Your task to perform on an android device: turn on wifi Image 0: 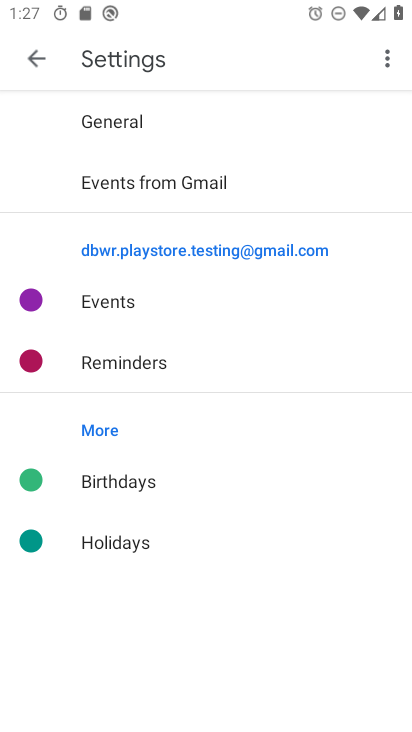
Step 0: press home button
Your task to perform on an android device: turn on wifi Image 1: 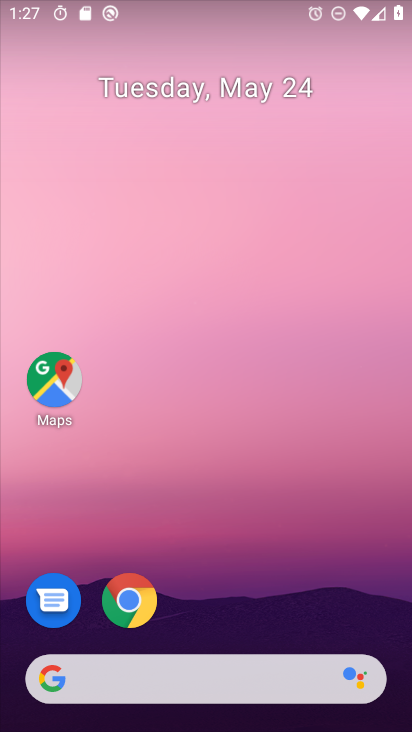
Step 1: drag from (261, 596) to (245, 182)
Your task to perform on an android device: turn on wifi Image 2: 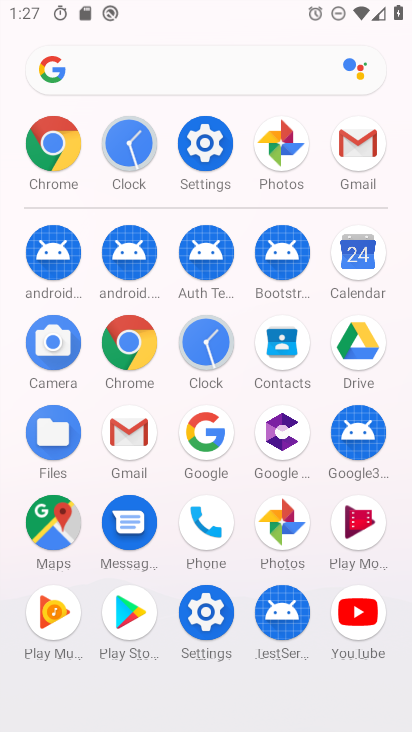
Step 2: click (216, 140)
Your task to perform on an android device: turn on wifi Image 3: 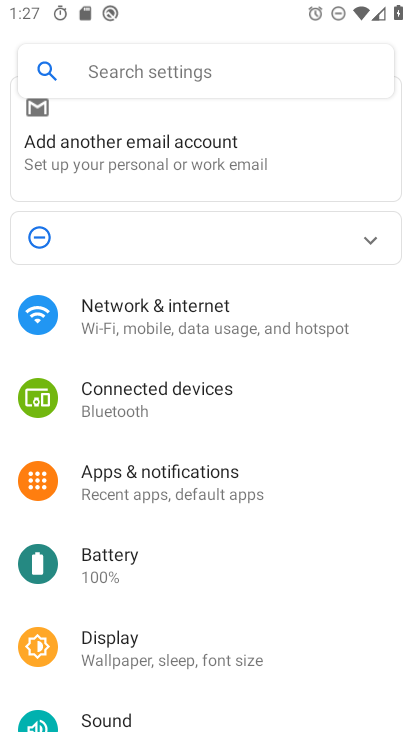
Step 3: click (175, 311)
Your task to perform on an android device: turn on wifi Image 4: 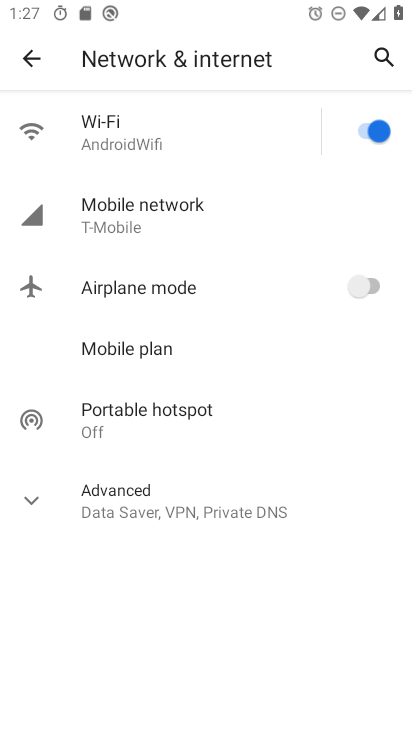
Step 4: click (238, 116)
Your task to perform on an android device: turn on wifi Image 5: 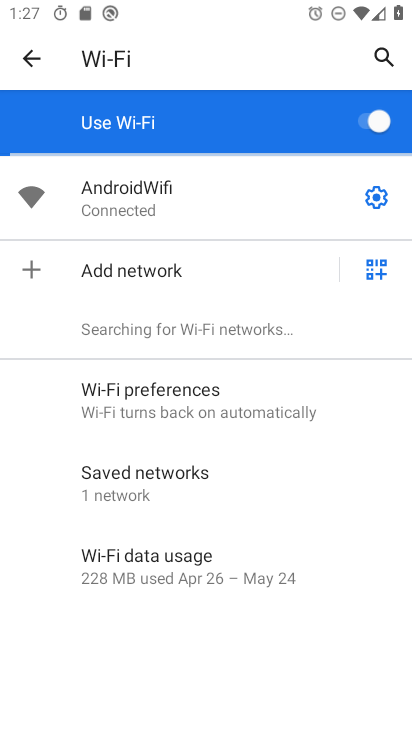
Step 5: task complete